Your task to perform on an android device: Go to sound settings Image 0: 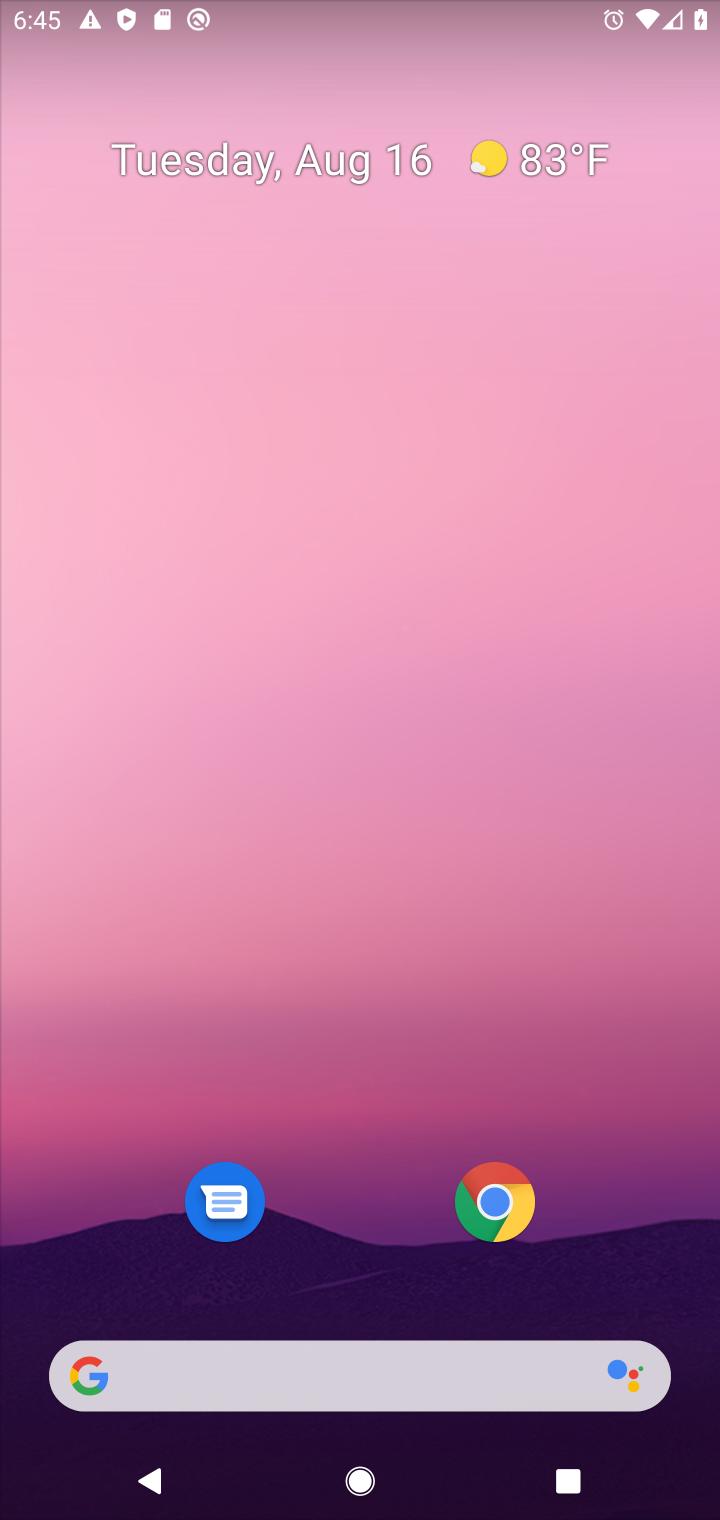
Step 0: drag from (578, 799) to (301, 22)
Your task to perform on an android device: Go to sound settings Image 1: 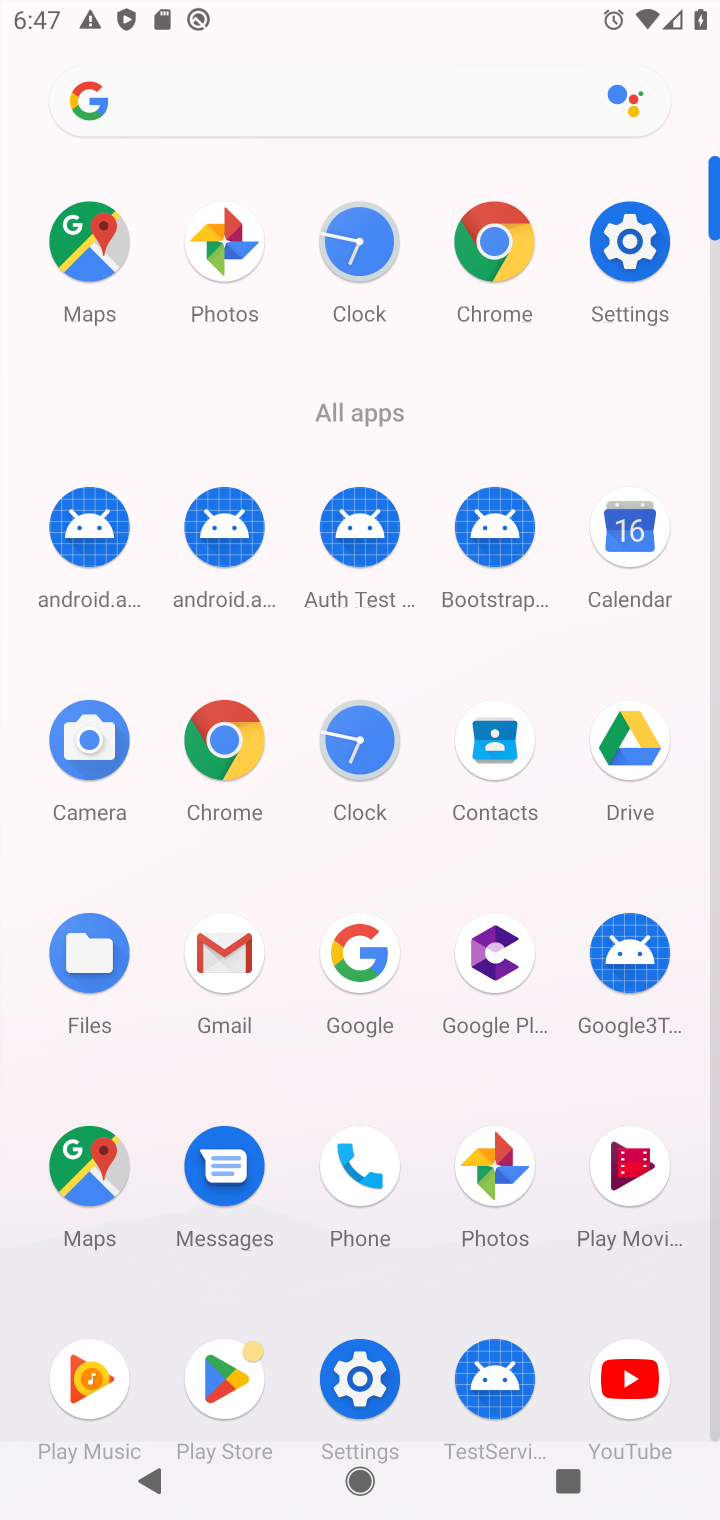
Step 1: click (370, 1393)
Your task to perform on an android device: Go to sound settings Image 2: 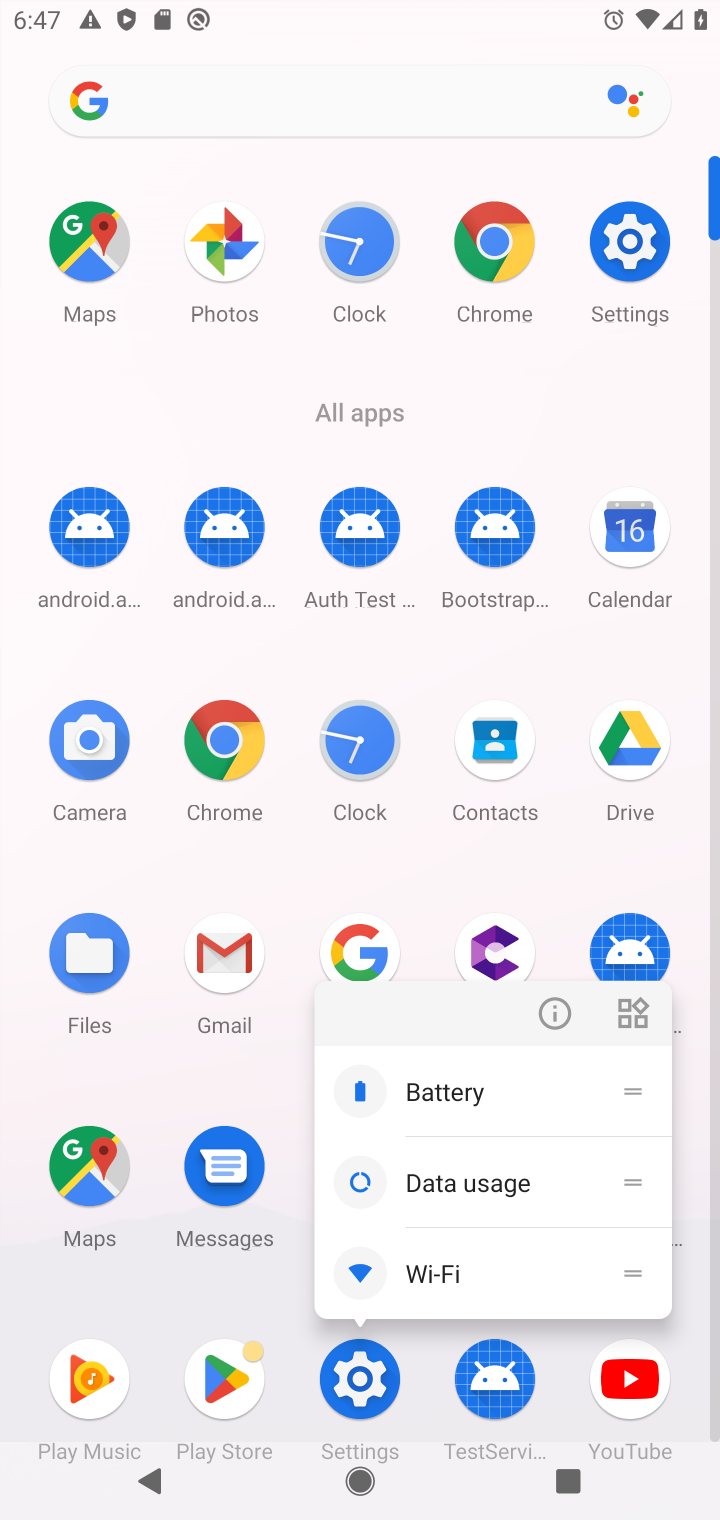
Step 2: click (350, 1358)
Your task to perform on an android device: Go to sound settings Image 3: 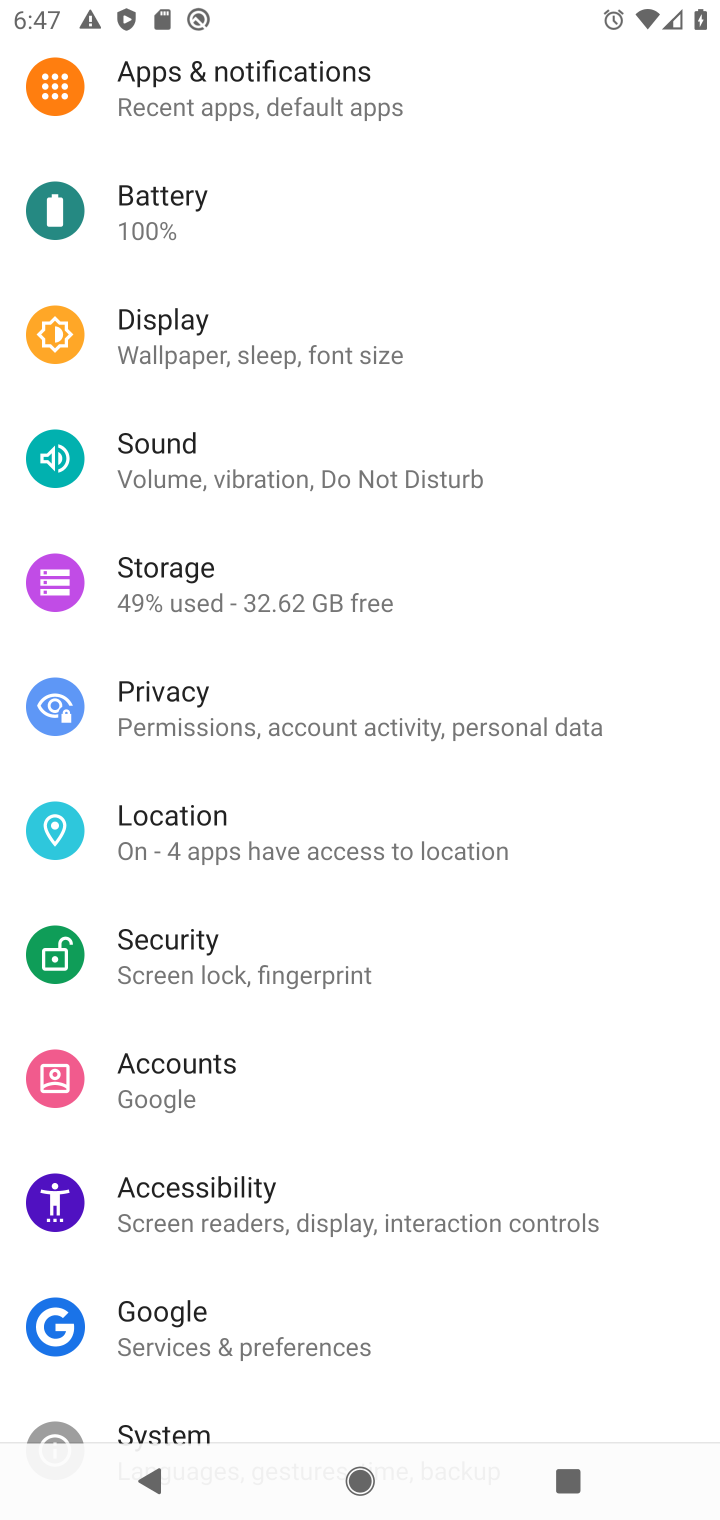
Step 3: click (207, 456)
Your task to perform on an android device: Go to sound settings Image 4: 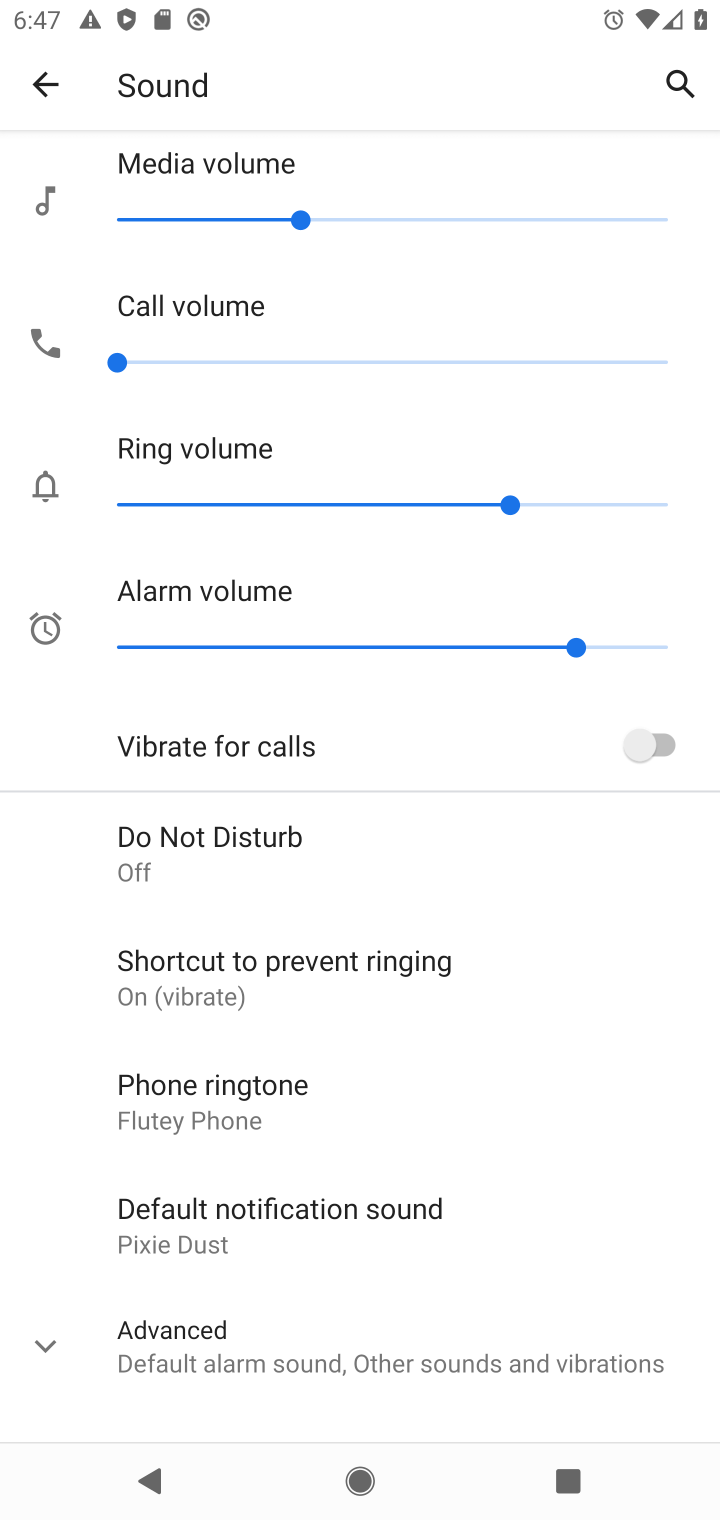
Step 4: task complete